Your task to perform on an android device: Open wifi settings Image 0: 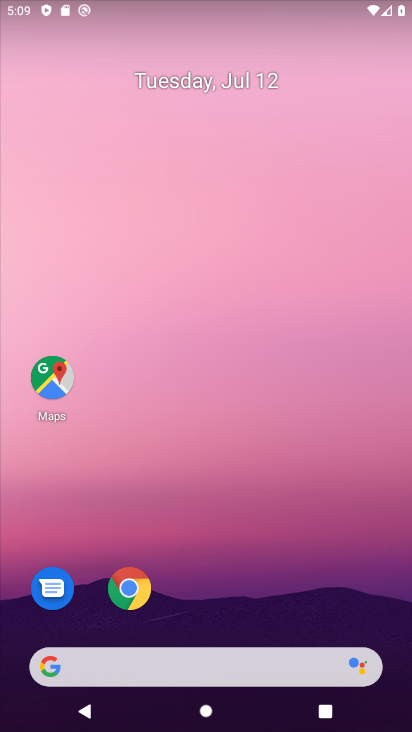
Step 0: drag from (318, 535) to (281, 32)
Your task to perform on an android device: Open wifi settings Image 1: 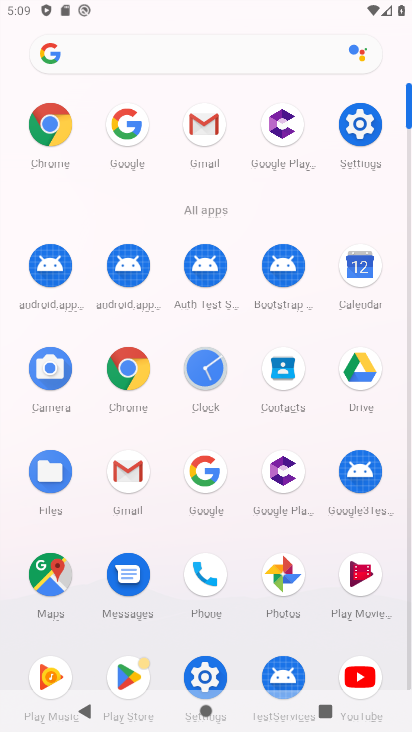
Step 1: click (374, 134)
Your task to perform on an android device: Open wifi settings Image 2: 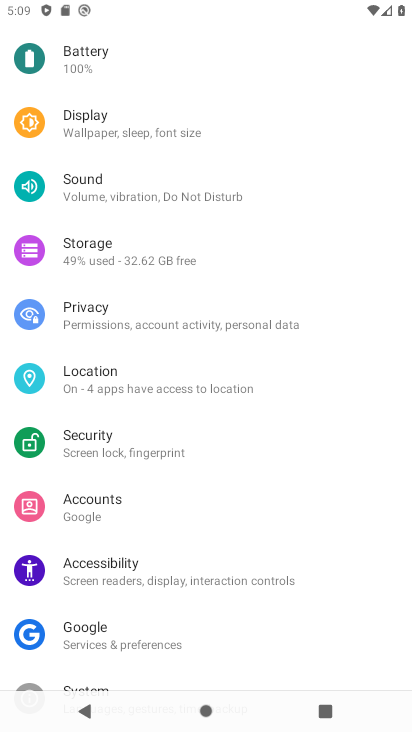
Step 2: drag from (151, 83) to (214, 468)
Your task to perform on an android device: Open wifi settings Image 3: 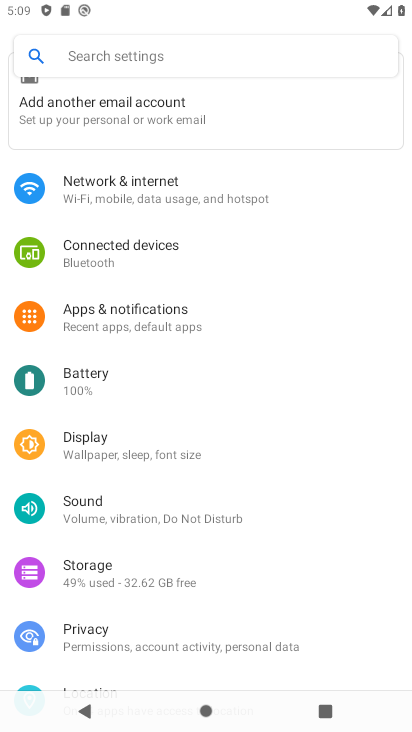
Step 3: click (100, 185)
Your task to perform on an android device: Open wifi settings Image 4: 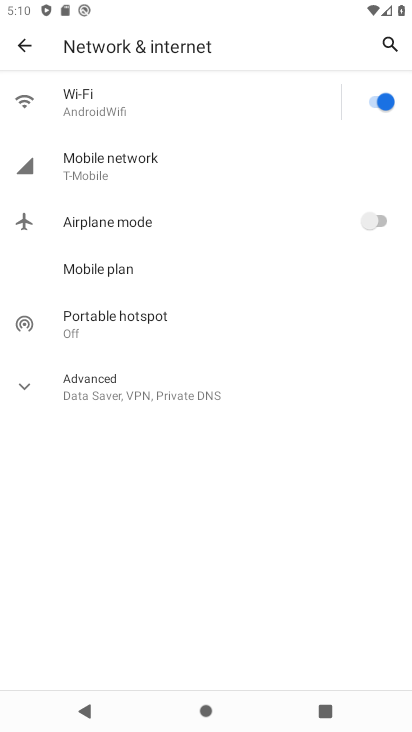
Step 4: click (139, 99)
Your task to perform on an android device: Open wifi settings Image 5: 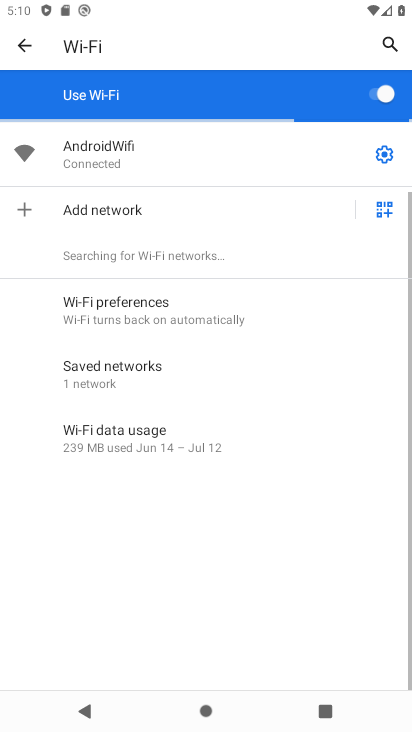
Step 5: task complete